Your task to perform on an android device: Open accessibility settings Image 0: 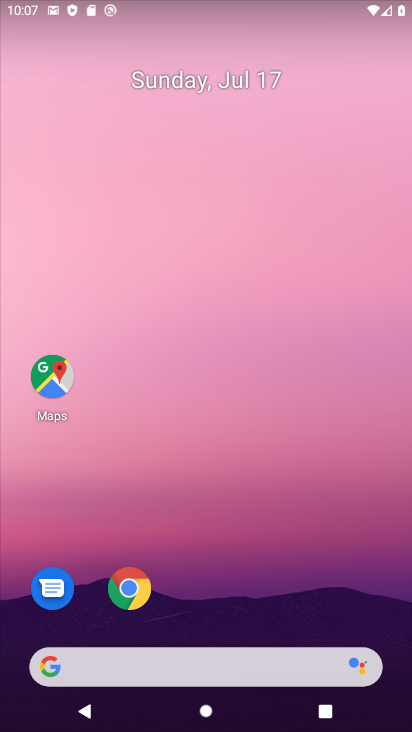
Step 0: drag from (347, 588) to (393, 271)
Your task to perform on an android device: Open accessibility settings Image 1: 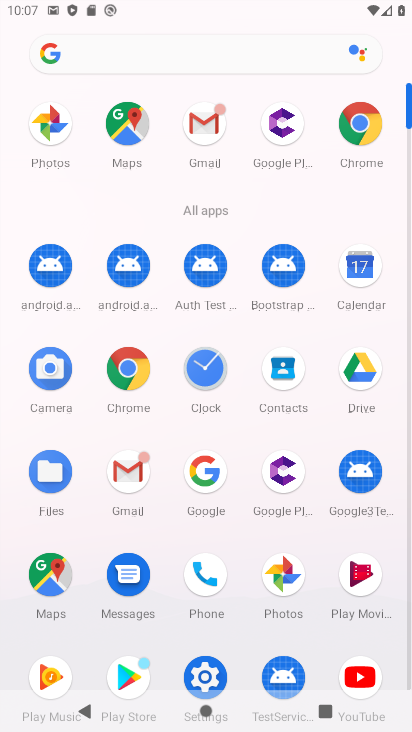
Step 1: click (195, 671)
Your task to perform on an android device: Open accessibility settings Image 2: 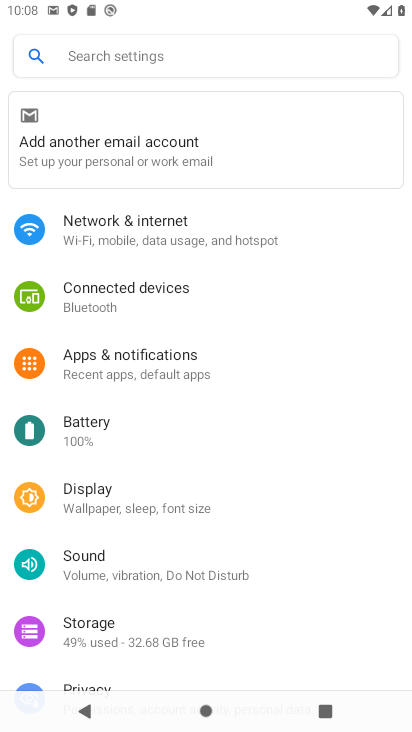
Step 2: drag from (150, 628) to (163, 167)
Your task to perform on an android device: Open accessibility settings Image 3: 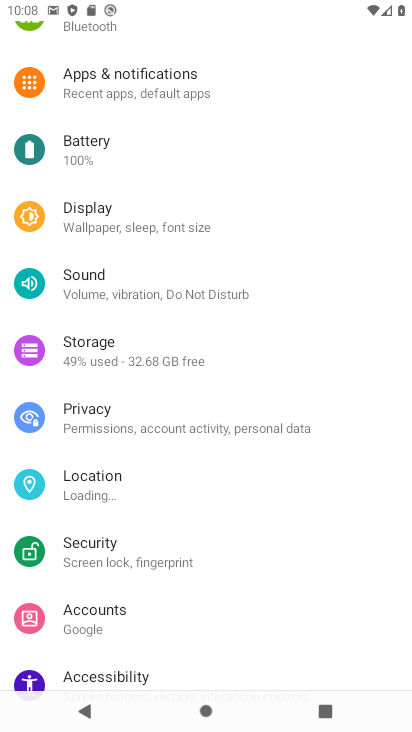
Step 3: drag from (154, 614) to (189, 141)
Your task to perform on an android device: Open accessibility settings Image 4: 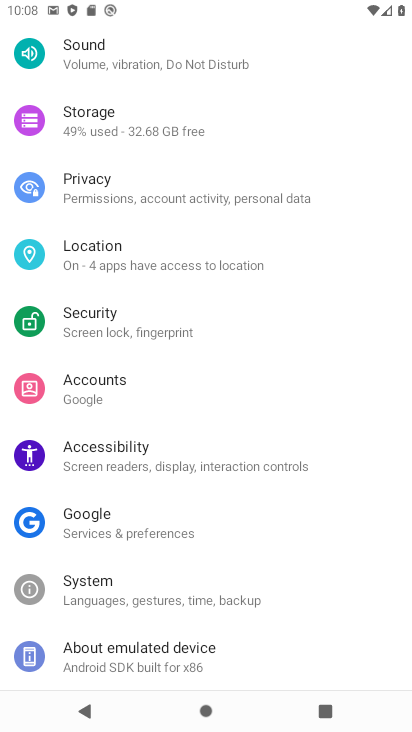
Step 4: drag from (140, 261) to (141, 350)
Your task to perform on an android device: Open accessibility settings Image 5: 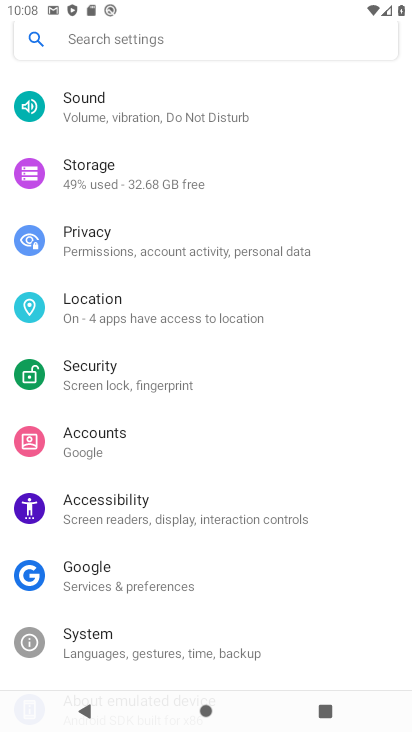
Step 5: click (47, 522)
Your task to perform on an android device: Open accessibility settings Image 6: 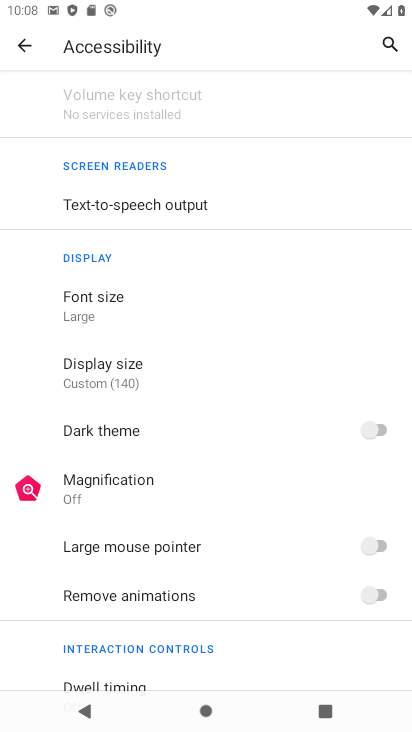
Step 6: task complete